Your task to perform on an android device: Go to notification settings Image 0: 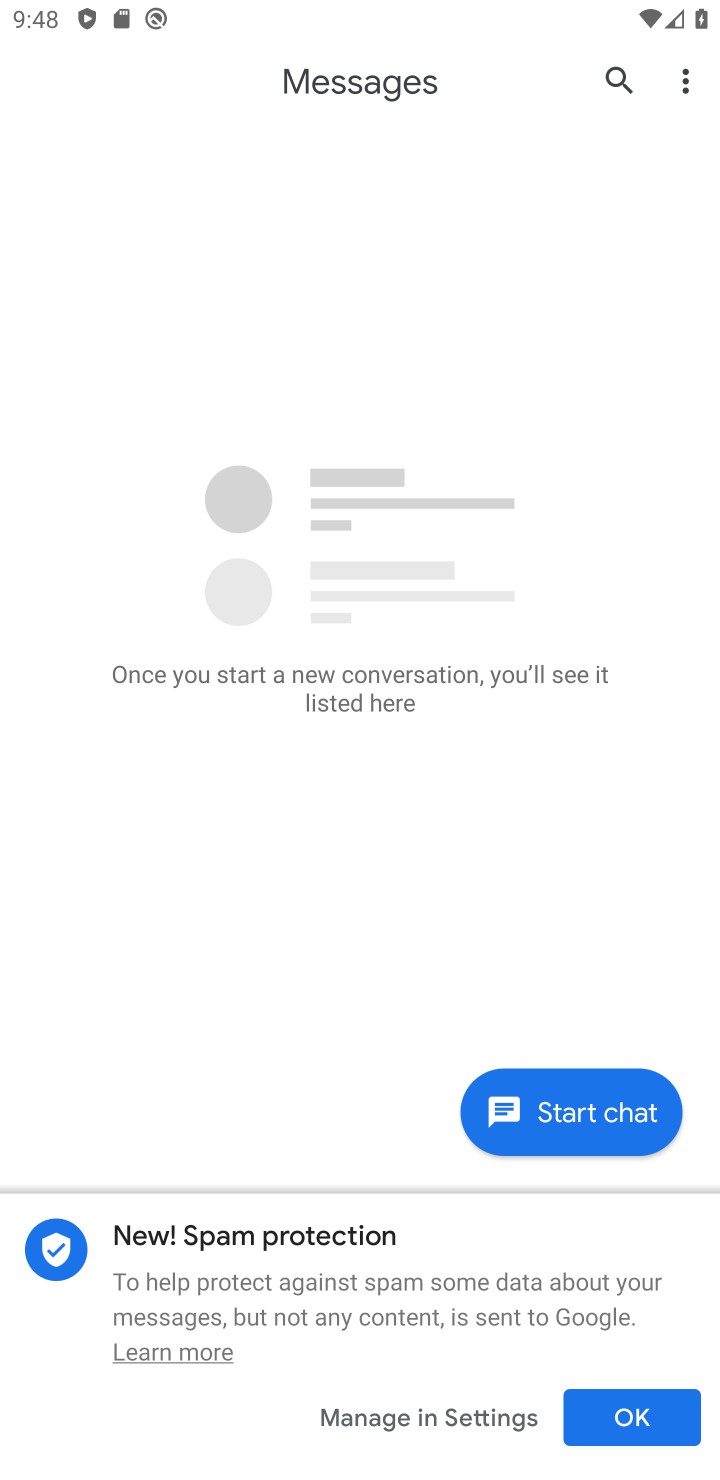
Step 0: press home button
Your task to perform on an android device: Go to notification settings Image 1: 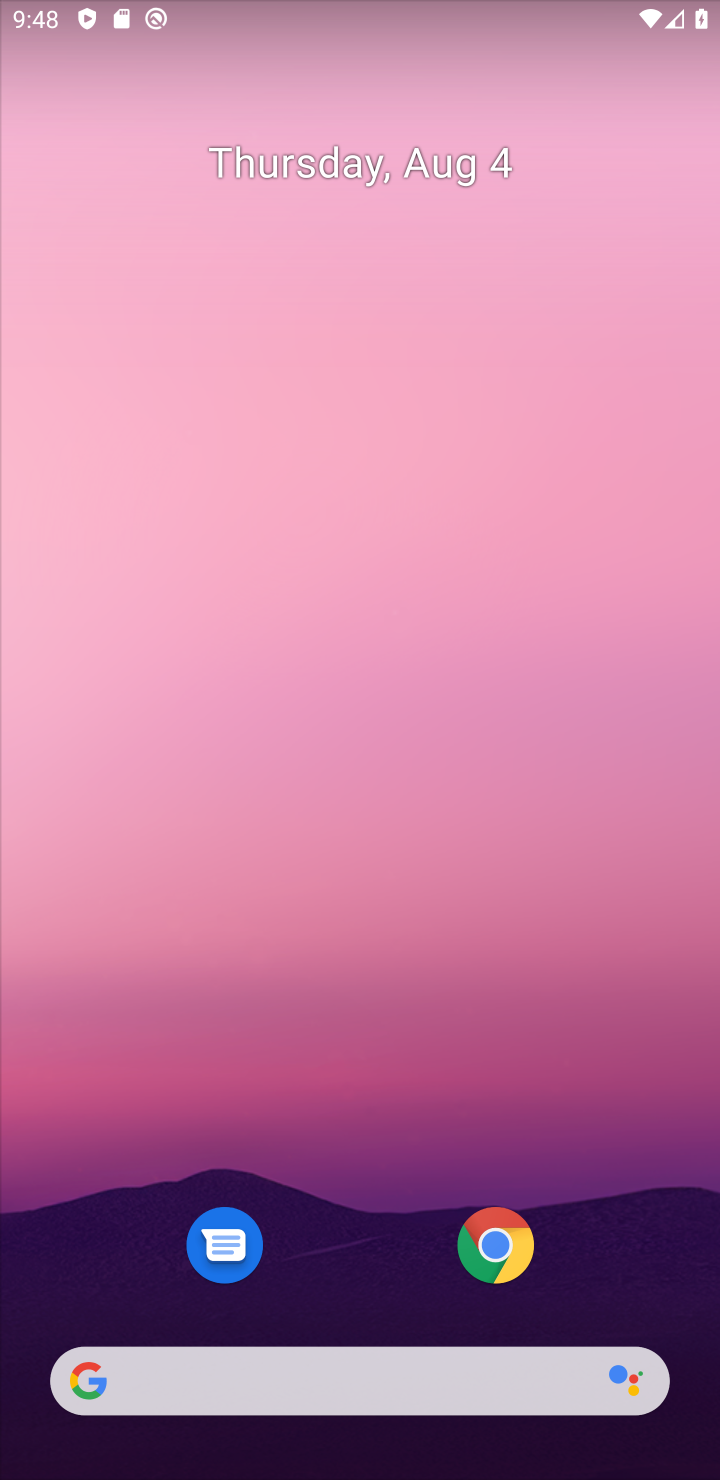
Step 1: drag from (620, 1277) to (243, 318)
Your task to perform on an android device: Go to notification settings Image 2: 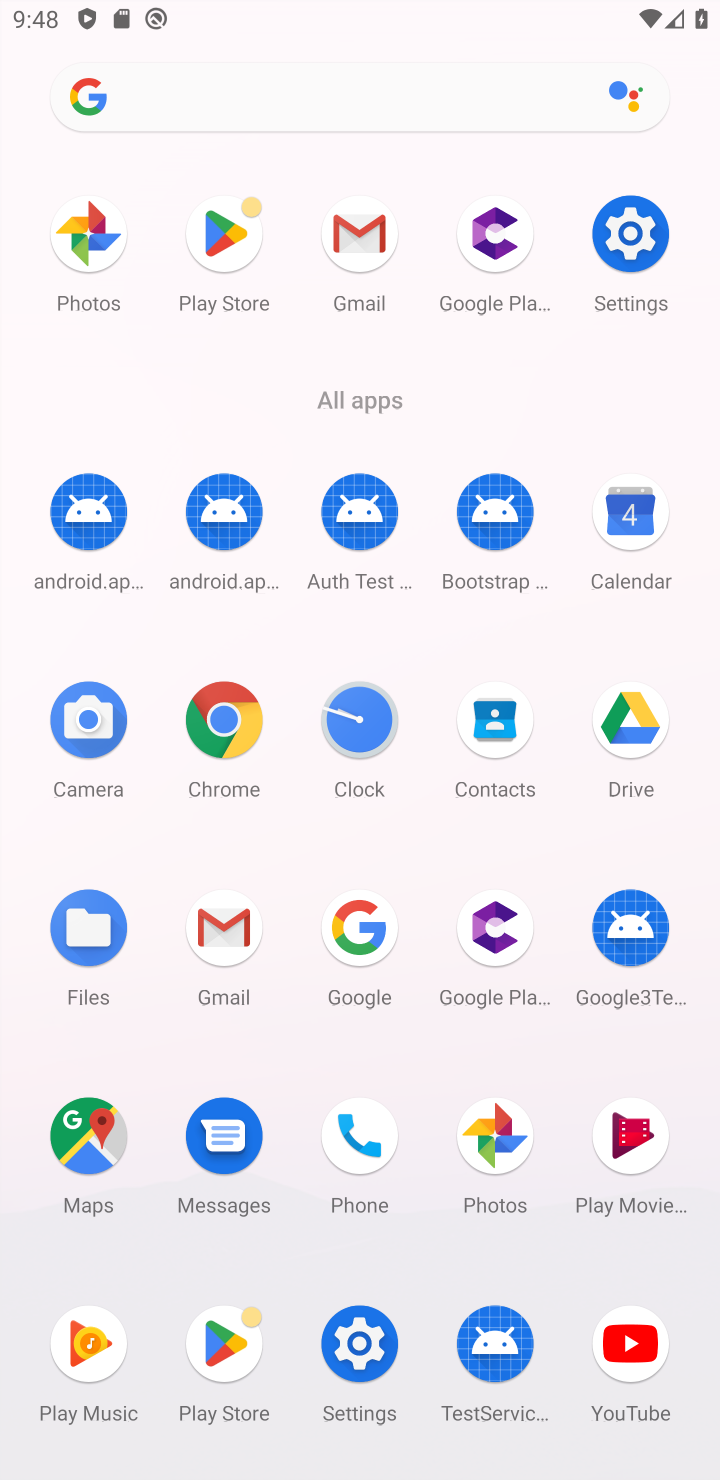
Step 2: click (350, 1341)
Your task to perform on an android device: Go to notification settings Image 3: 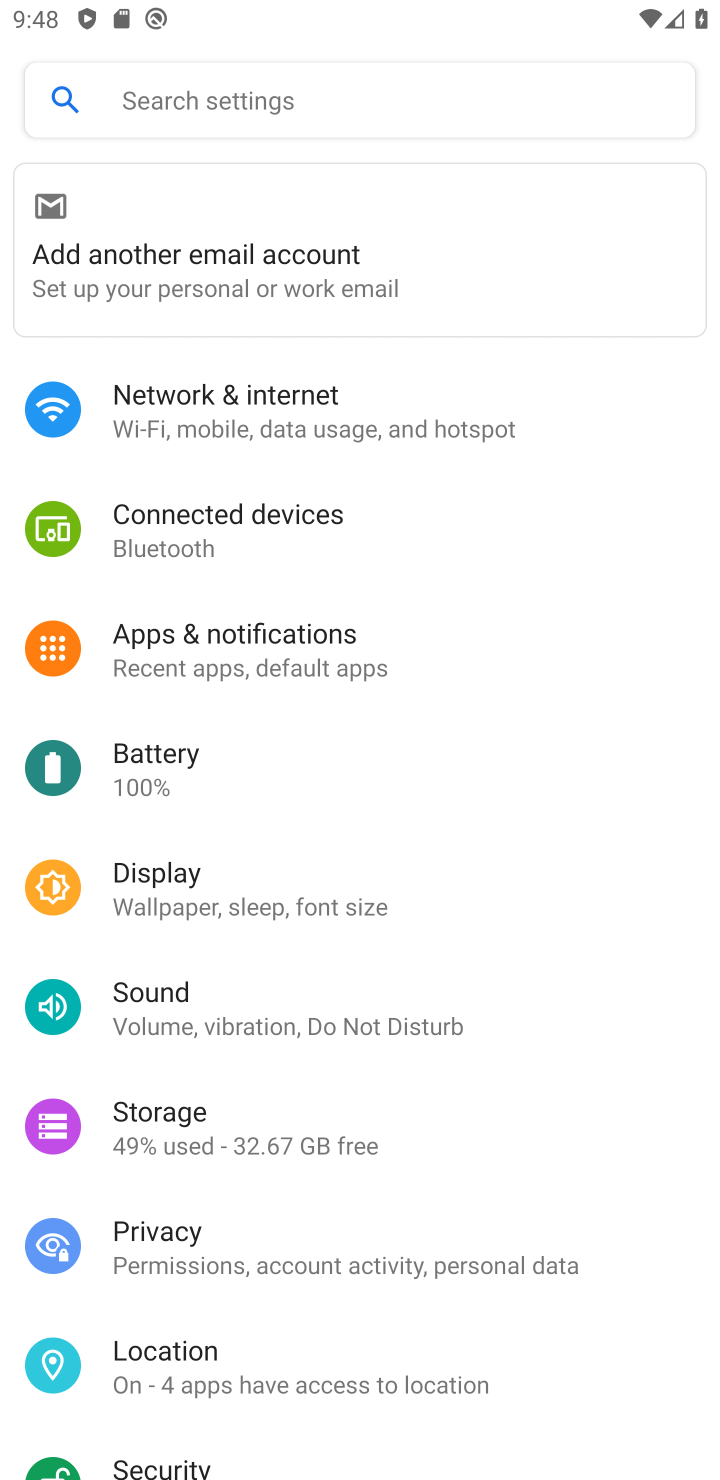
Step 3: click (306, 672)
Your task to perform on an android device: Go to notification settings Image 4: 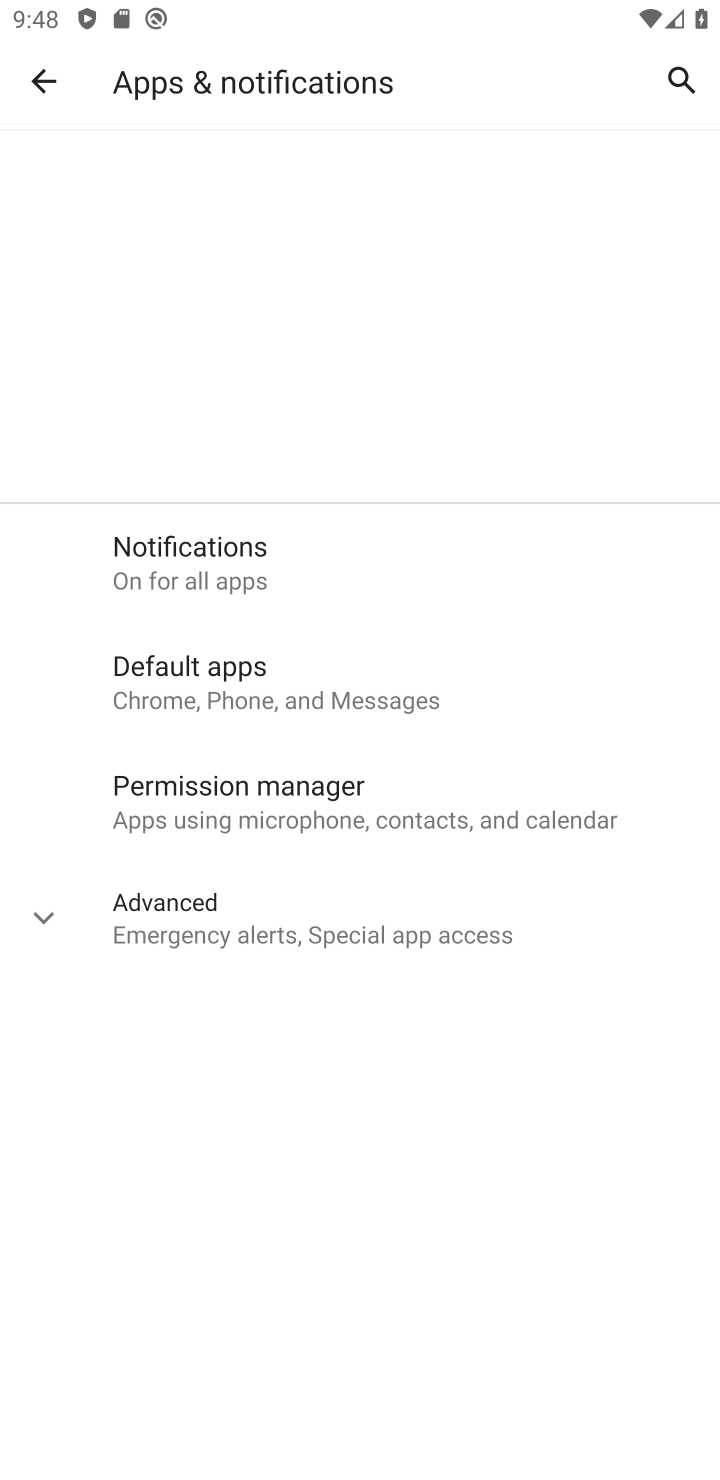
Step 4: click (212, 539)
Your task to perform on an android device: Go to notification settings Image 5: 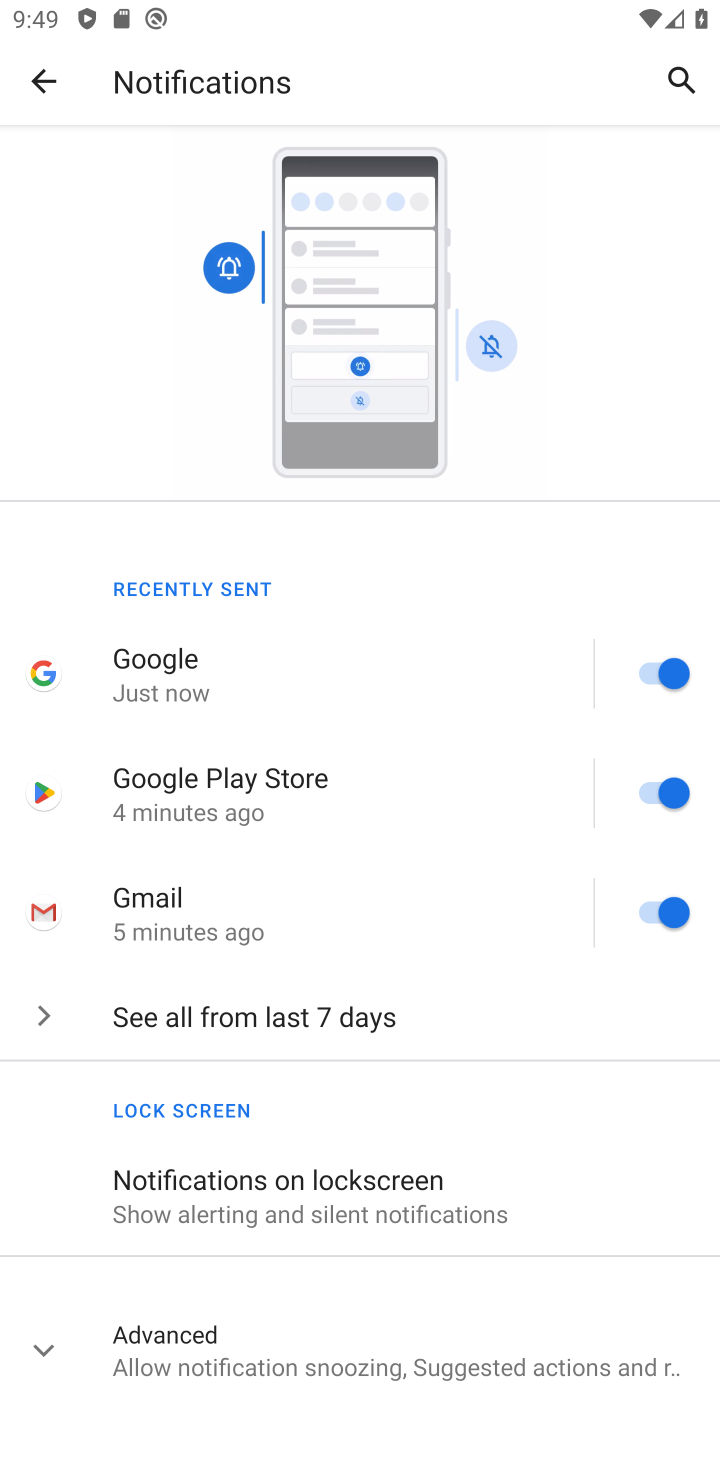
Step 5: task complete